Your task to perform on an android device: Look up the new steph curry shoes Image 0: 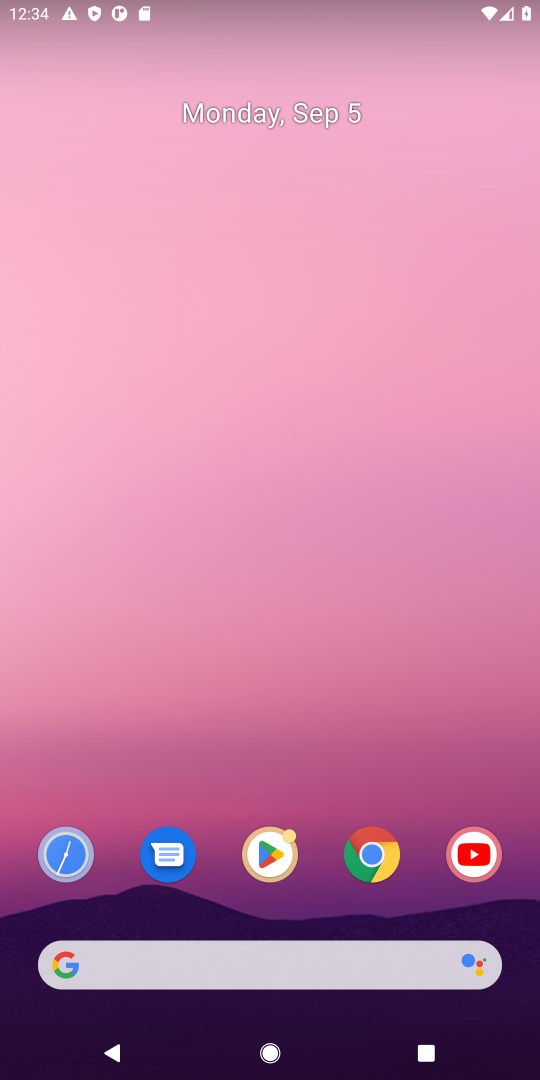
Step 0: click (325, 963)
Your task to perform on an android device: Look up the new steph curry shoes Image 1: 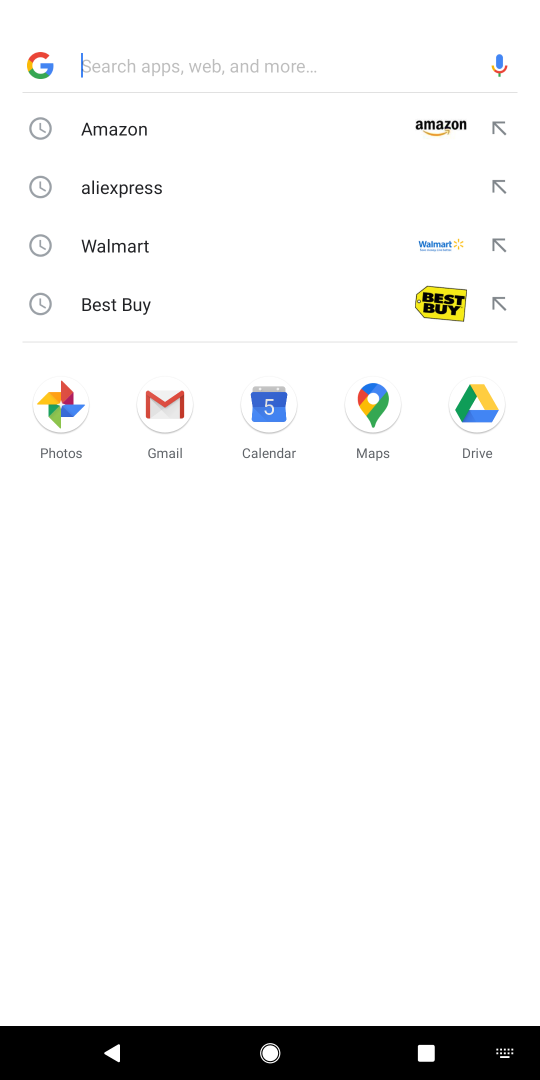
Step 1: type "new steph curry shoes"
Your task to perform on an android device: Look up the new steph curry shoes Image 2: 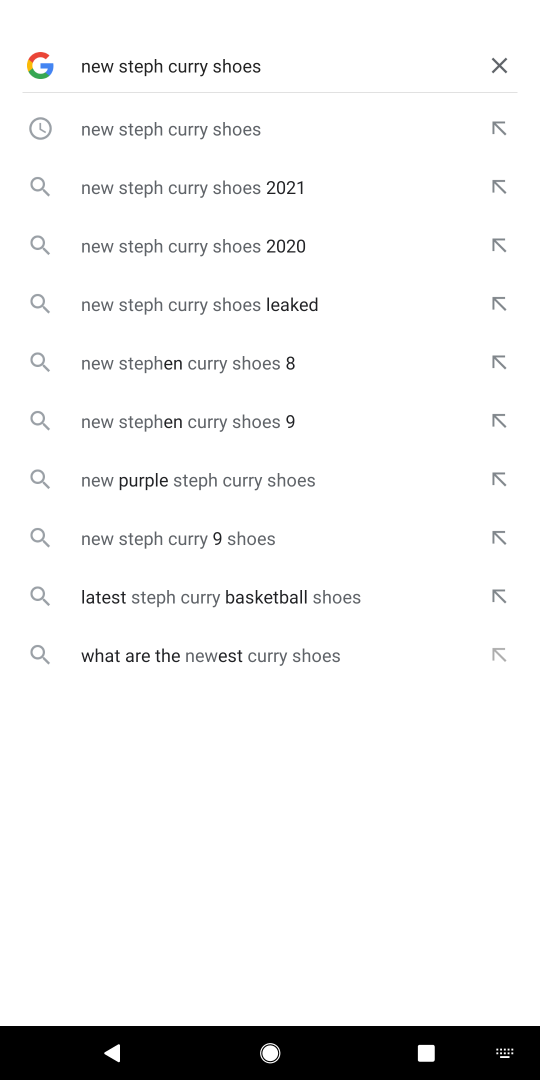
Step 2: press enter
Your task to perform on an android device: Look up the new steph curry shoes Image 3: 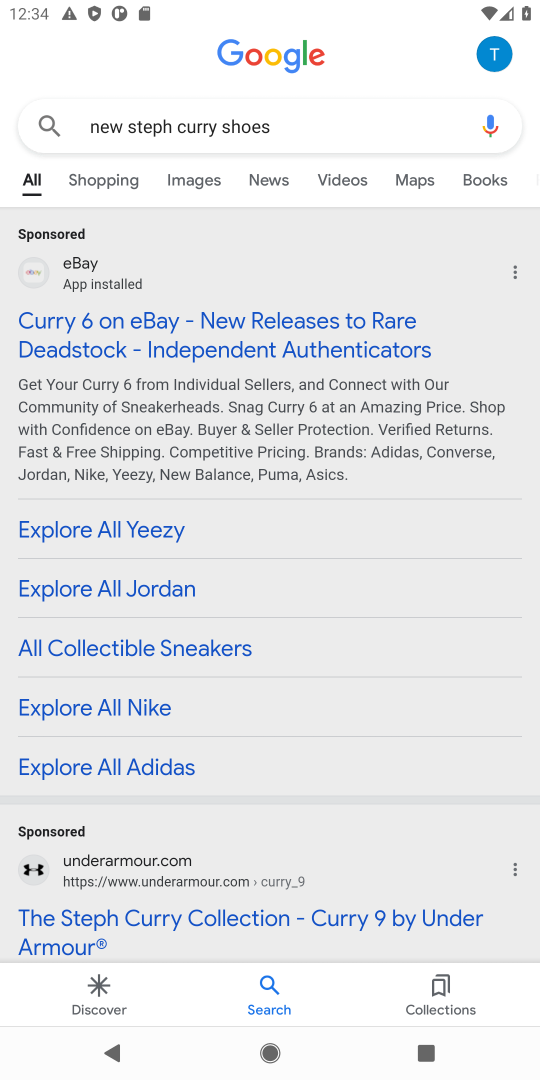
Step 3: click (213, 340)
Your task to perform on an android device: Look up the new steph curry shoes Image 4: 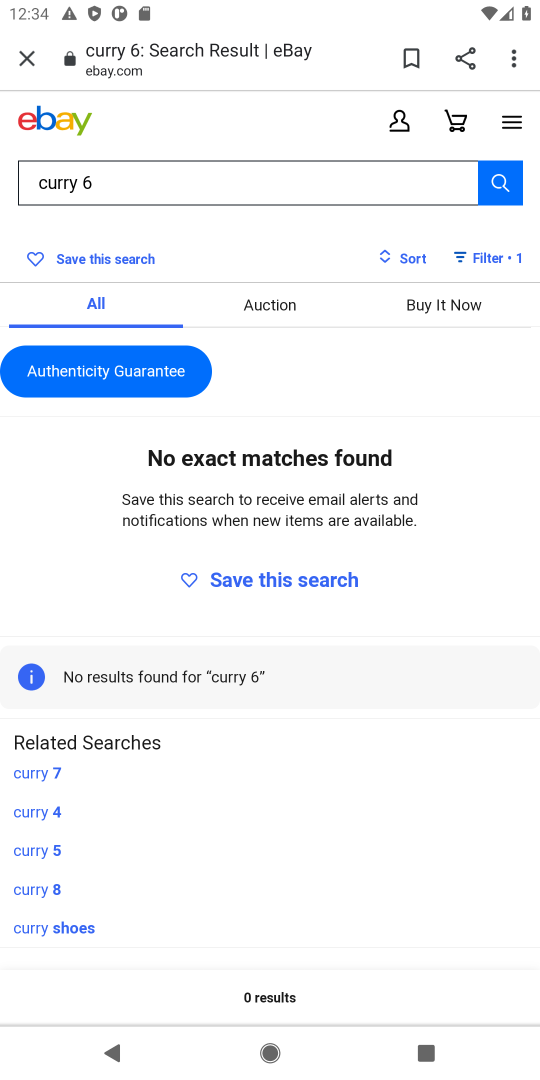
Step 4: press back button
Your task to perform on an android device: Look up the new steph curry shoes Image 5: 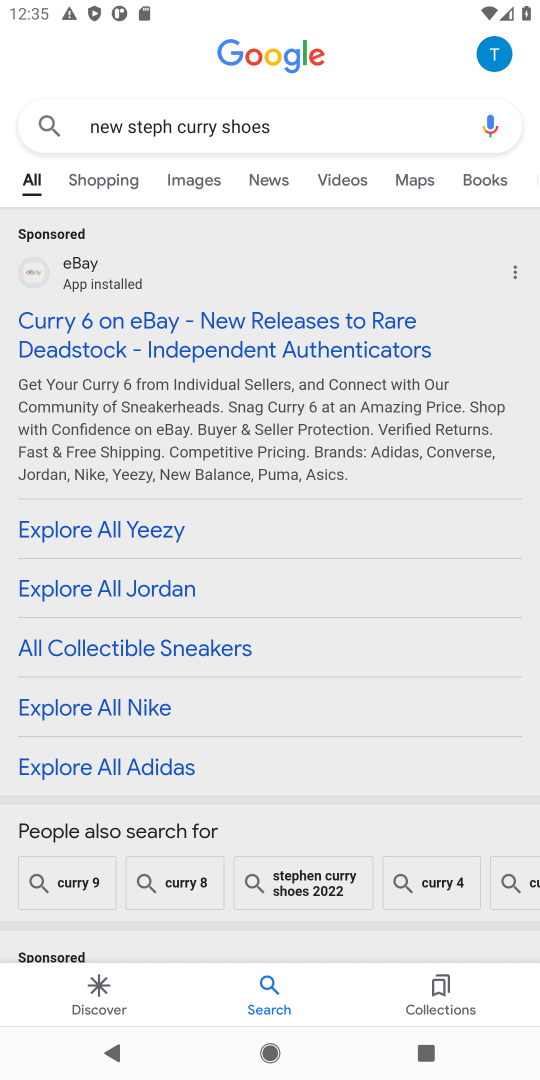
Step 5: drag from (400, 751) to (412, 261)
Your task to perform on an android device: Look up the new steph curry shoes Image 6: 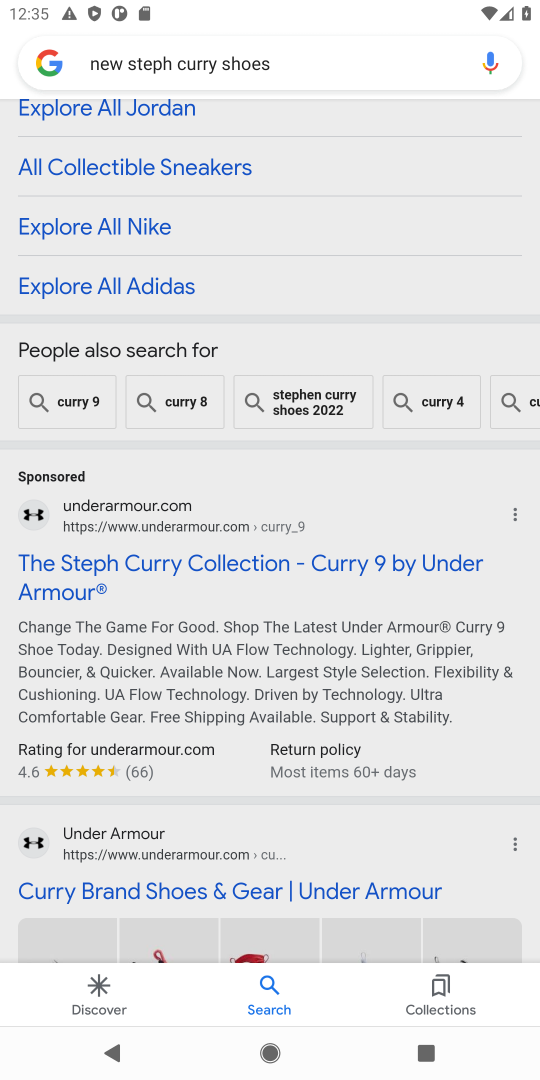
Step 6: click (184, 563)
Your task to perform on an android device: Look up the new steph curry shoes Image 7: 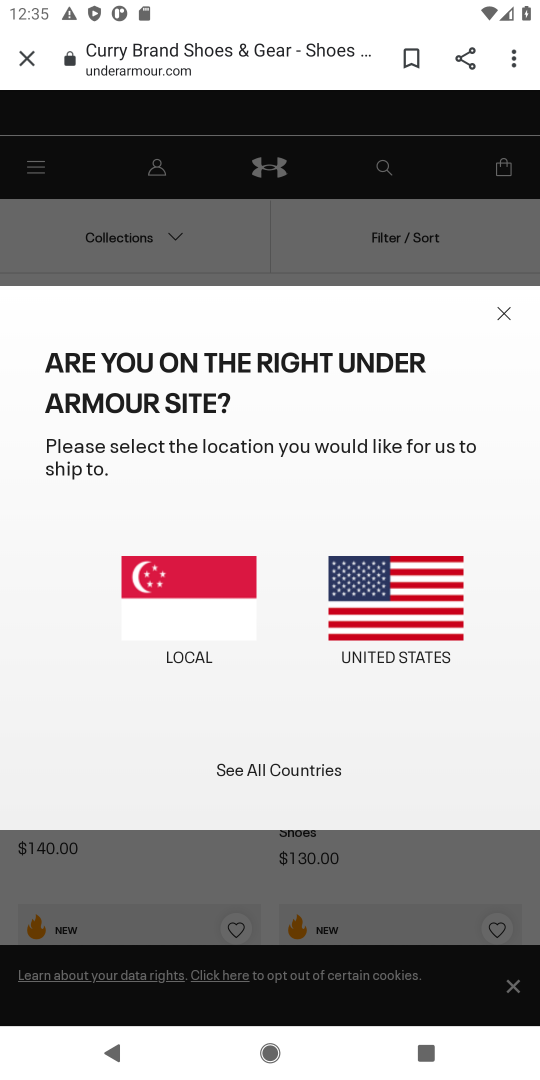
Step 7: click (513, 308)
Your task to perform on an android device: Look up the new steph curry shoes Image 8: 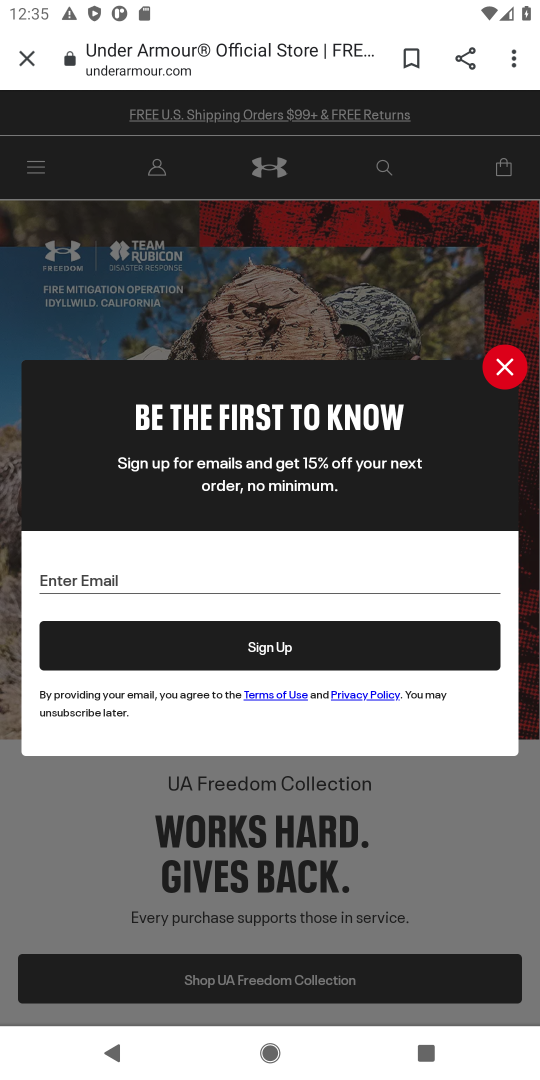
Step 8: click (507, 361)
Your task to perform on an android device: Look up the new steph curry shoes Image 9: 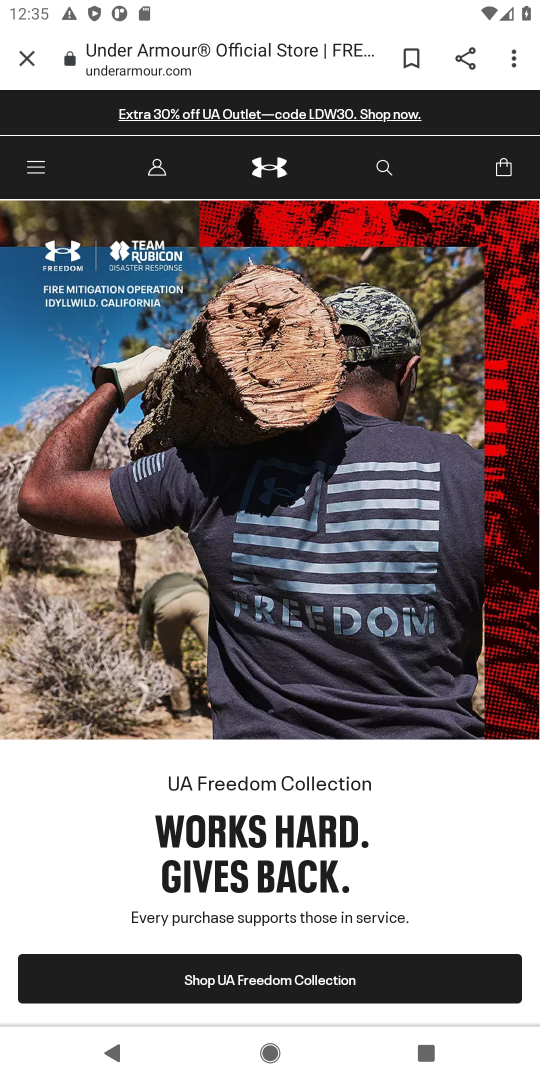
Step 9: task complete